Your task to perform on an android device: Toggle the flashlight Image 0: 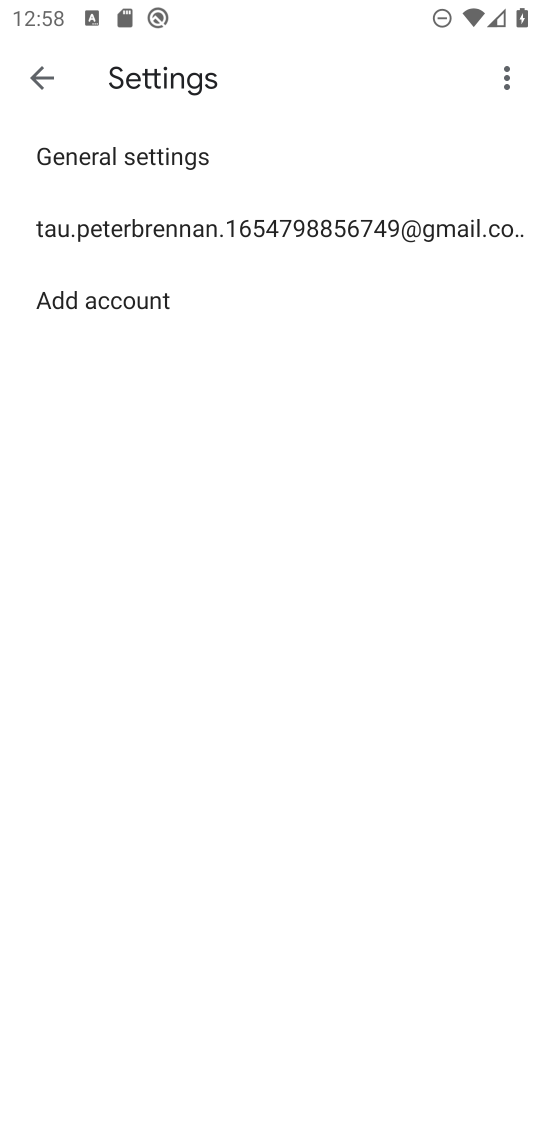
Step 0: press home button
Your task to perform on an android device: Toggle the flashlight Image 1: 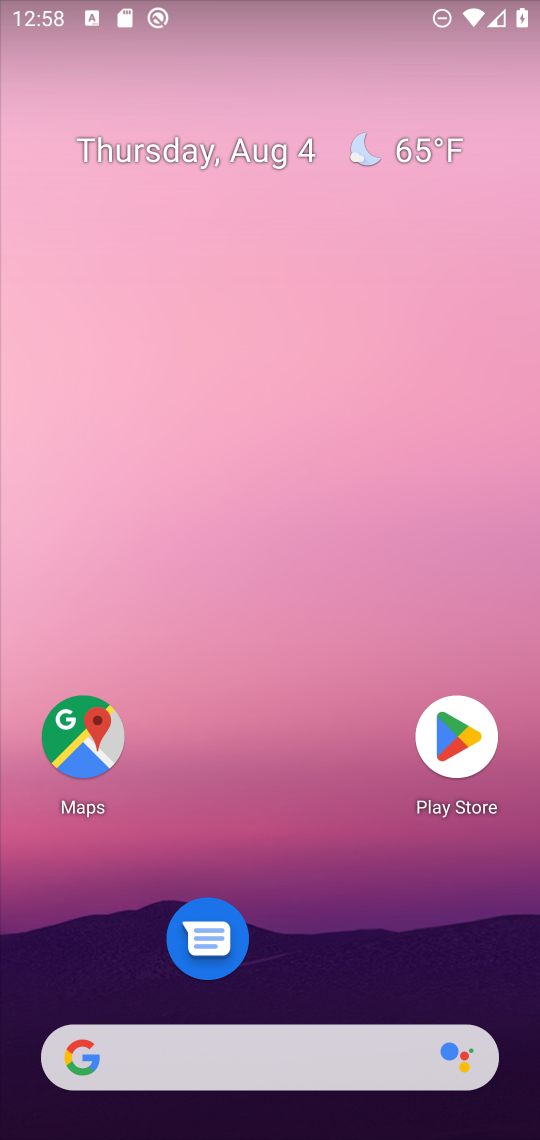
Step 1: task complete